Your task to perform on an android device: create a new album in the google photos Image 0: 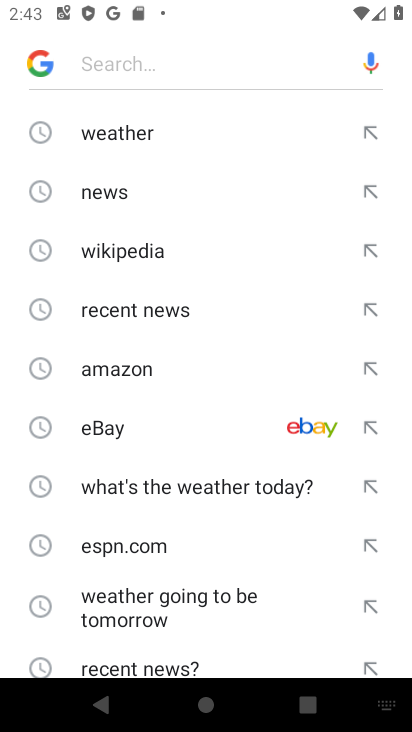
Step 0: press back button
Your task to perform on an android device: create a new album in the google photos Image 1: 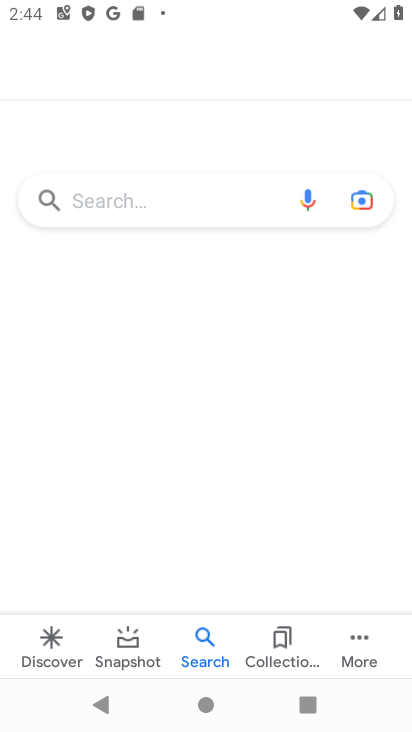
Step 1: press back button
Your task to perform on an android device: create a new album in the google photos Image 2: 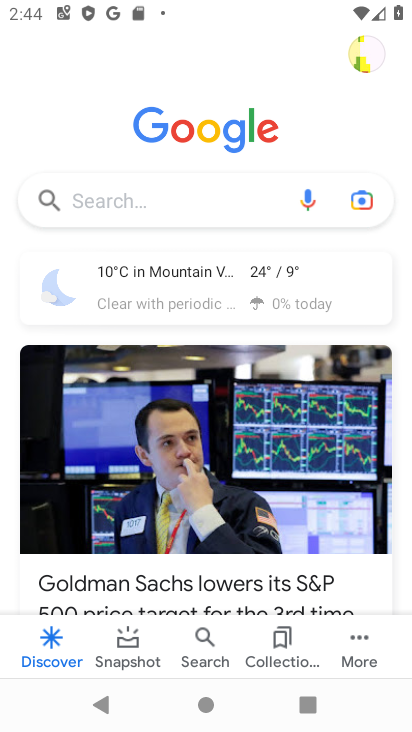
Step 2: press back button
Your task to perform on an android device: create a new album in the google photos Image 3: 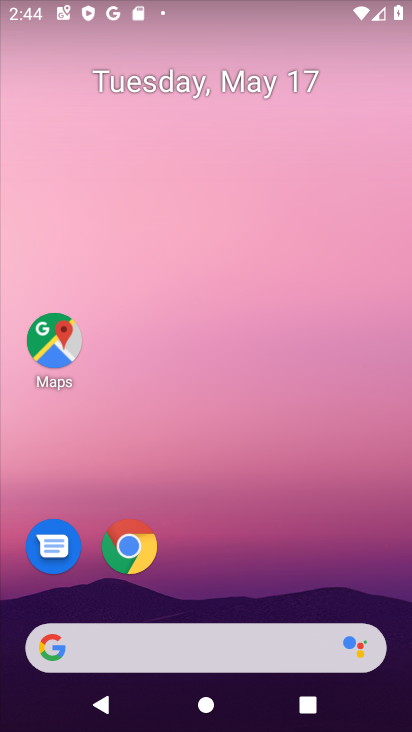
Step 3: drag from (356, 352) to (353, 272)
Your task to perform on an android device: create a new album in the google photos Image 4: 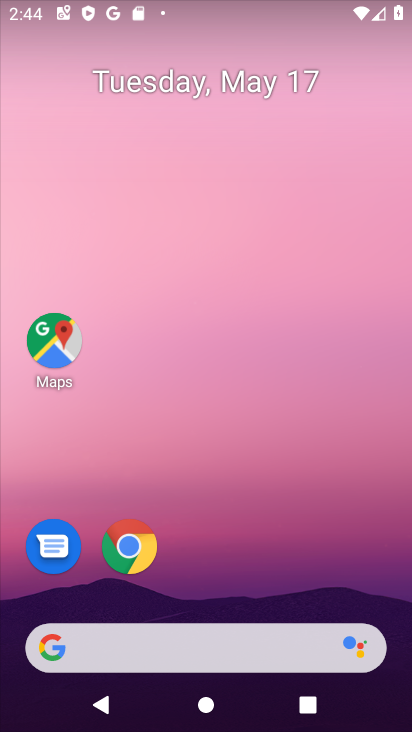
Step 4: drag from (399, 680) to (352, 296)
Your task to perform on an android device: create a new album in the google photos Image 5: 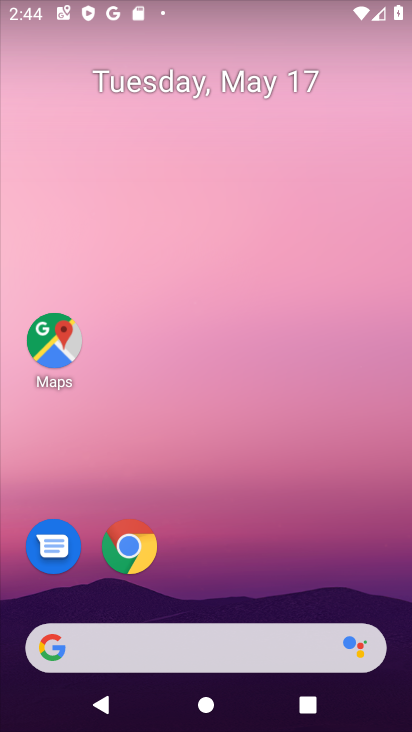
Step 5: drag from (404, 684) to (391, 299)
Your task to perform on an android device: create a new album in the google photos Image 6: 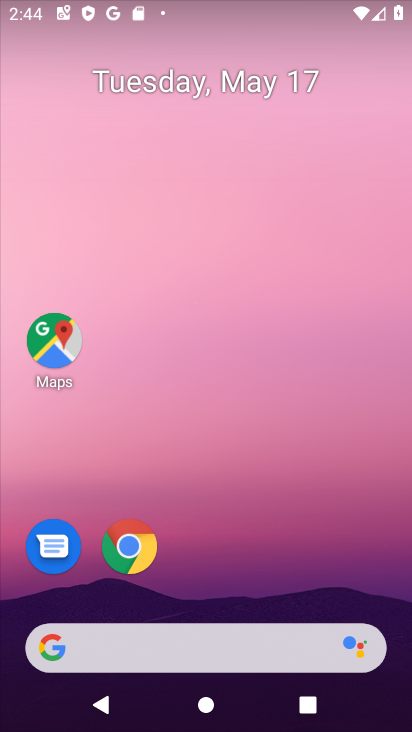
Step 6: drag from (404, 671) to (359, 273)
Your task to perform on an android device: create a new album in the google photos Image 7: 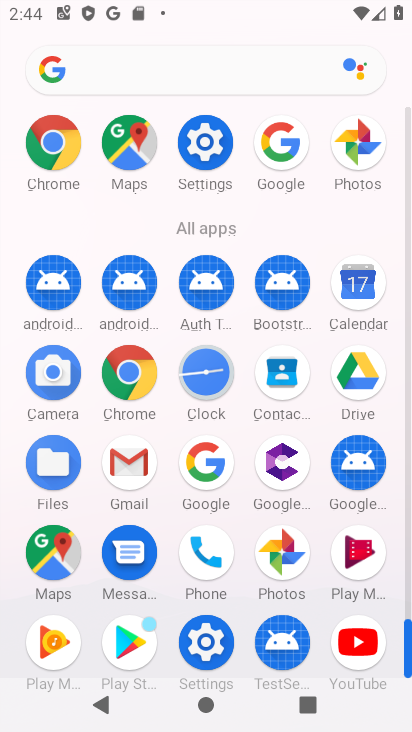
Step 7: click (281, 545)
Your task to perform on an android device: create a new album in the google photos Image 8: 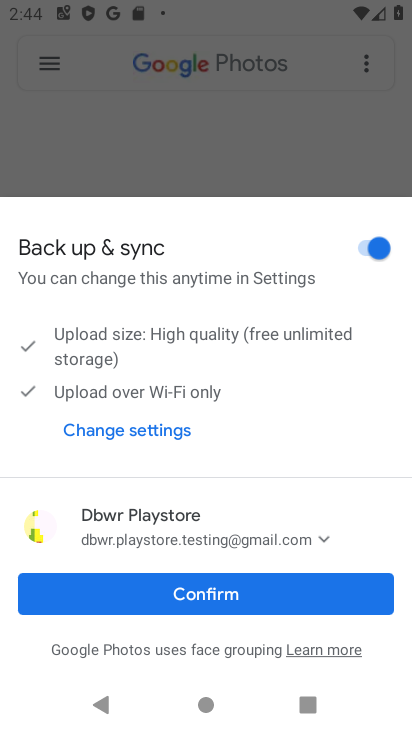
Step 8: click (272, 589)
Your task to perform on an android device: create a new album in the google photos Image 9: 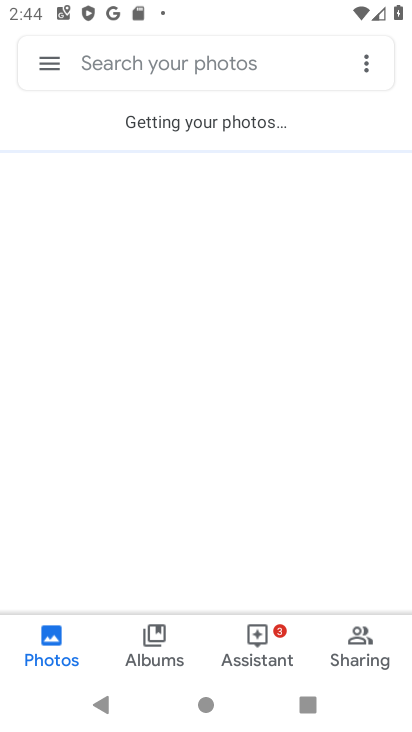
Step 9: click (54, 60)
Your task to perform on an android device: create a new album in the google photos Image 10: 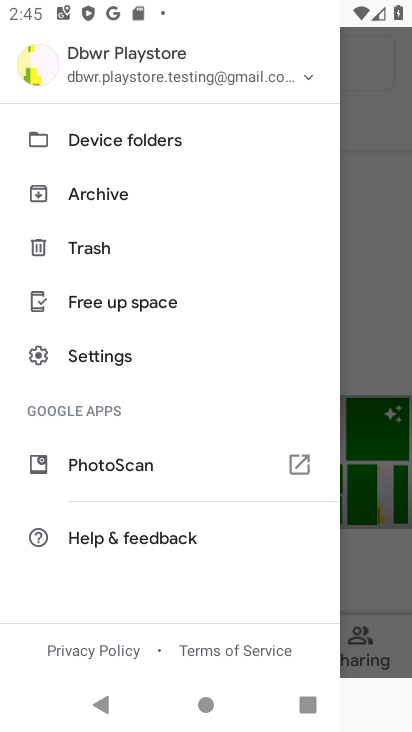
Step 10: press back button
Your task to perform on an android device: create a new album in the google photos Image 11: 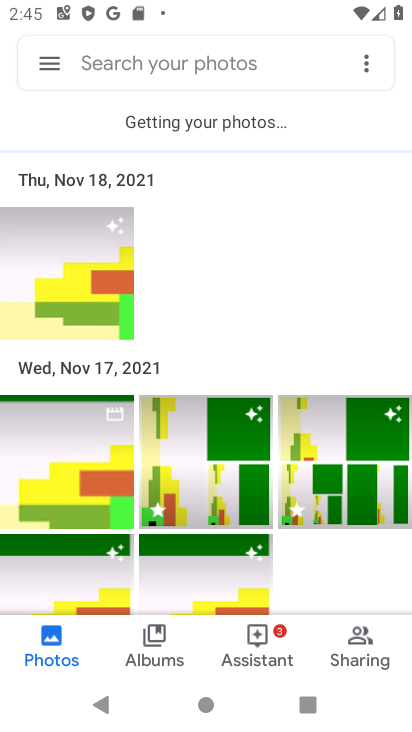
Step 11: click (370, 55)
Your task to perform on an android device: create a new album in the google photos Image 12: 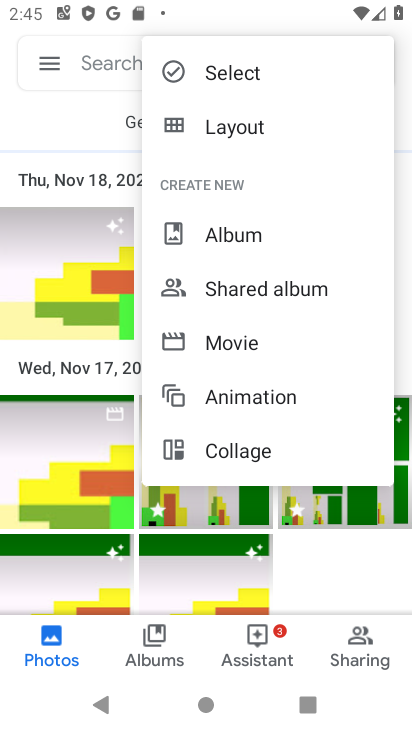
Step 12: click (220, 230)
Your task to perform on an android device: create a new album in the google photos Image 13: 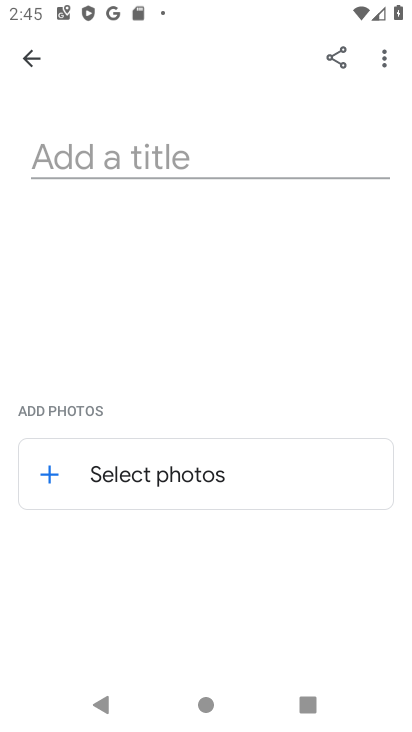
Step 13: click (128, 157)
Your task to perform on an android device: create a new album in the google photos Image 14: 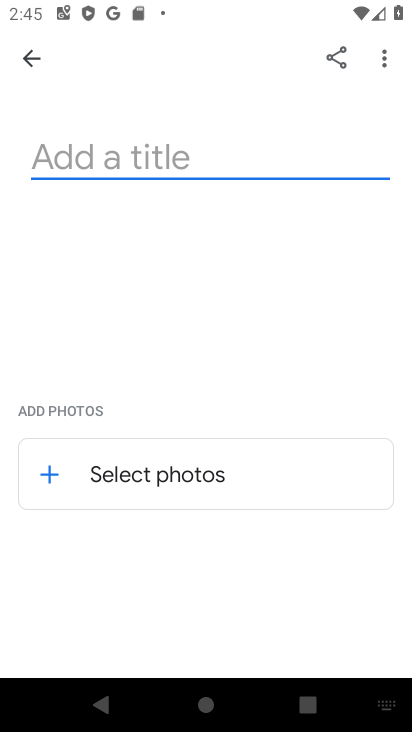
Step 14: type "wdfb"
Your task to perform on an android device: create a new album in the google photos Image 15: 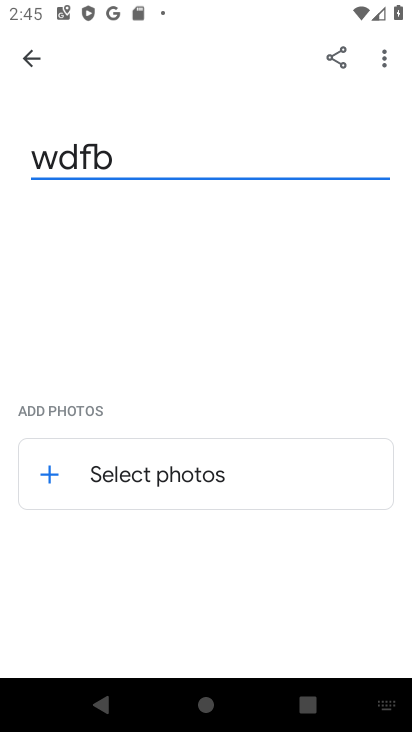
Step 15: click (115, 484)
Your task to perform on an android device: create a new album in the google photos Image 16: 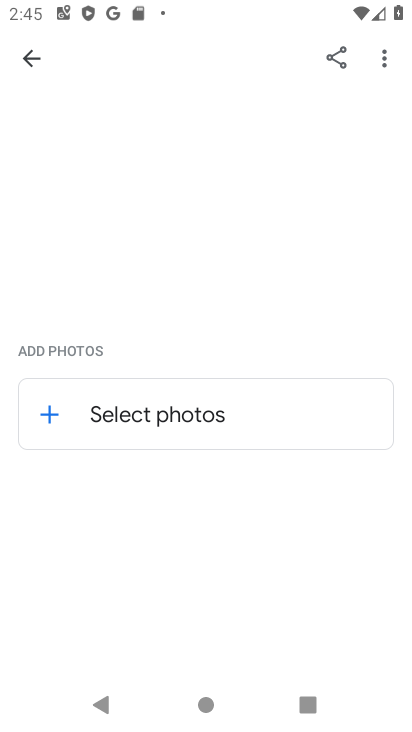
Step 16: click (52, 415)
Your task to perform on an android device: create a new album in the google photos Image 17: 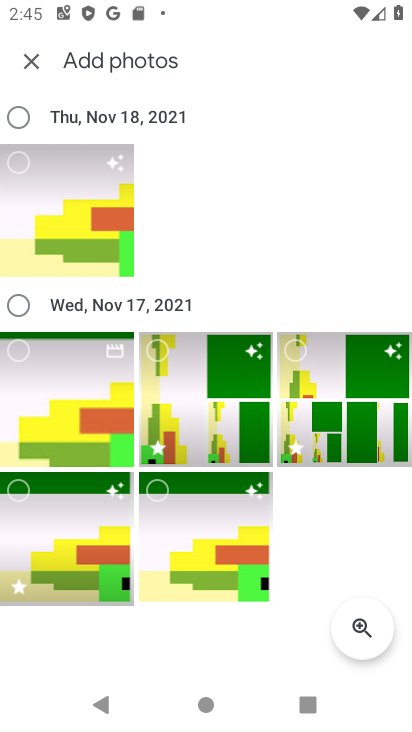
Step 17: click (17, 166)
Your task to perform on an android device: create a new album in the google photos Image 18: 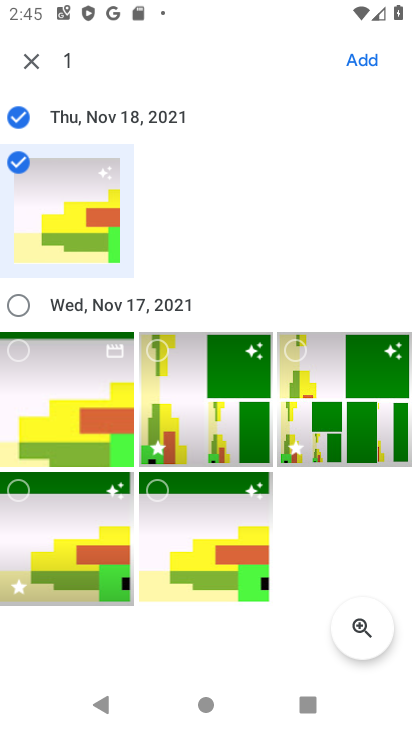
Step 18: click (161, 491)
Your task to perform on an android device: create a new album in the google photos Image 19: 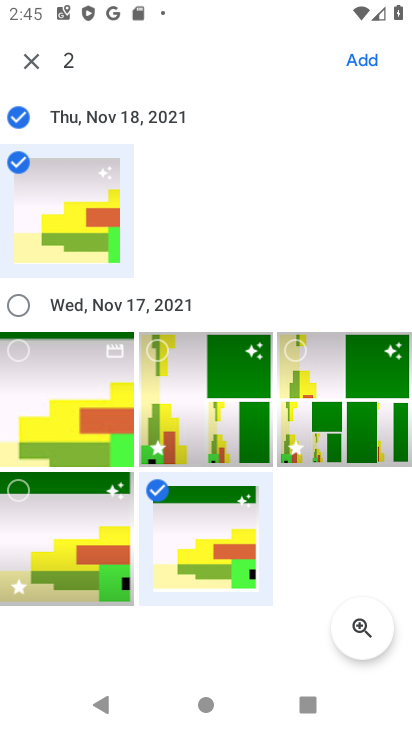
Step 19: click (294, 351)
Your task to perform on an android device: create a new album in the google photos Image 20: 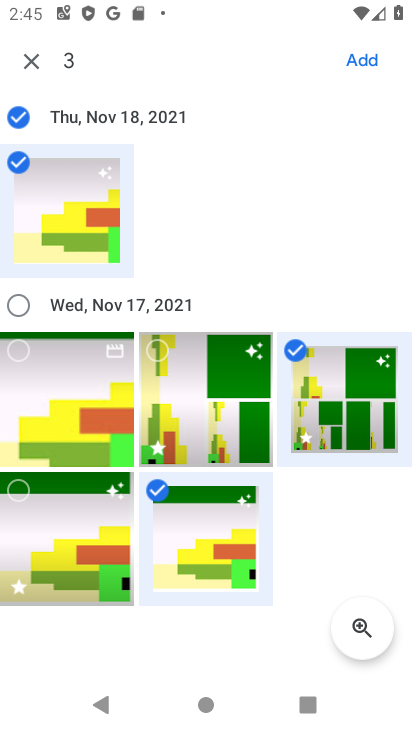
Step 20: click (27, 495)
Your task to perform on an android device: create a new album in the google photos Image 21: 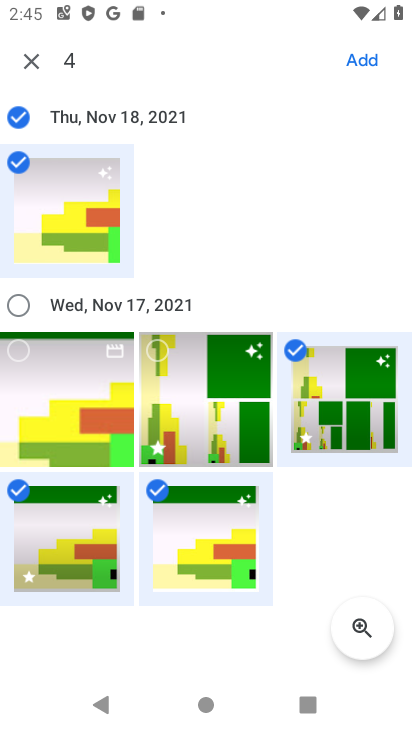
Step 21: click (376, 56)
Your task to perform on an android device: create a new album in the google photos Image 22: 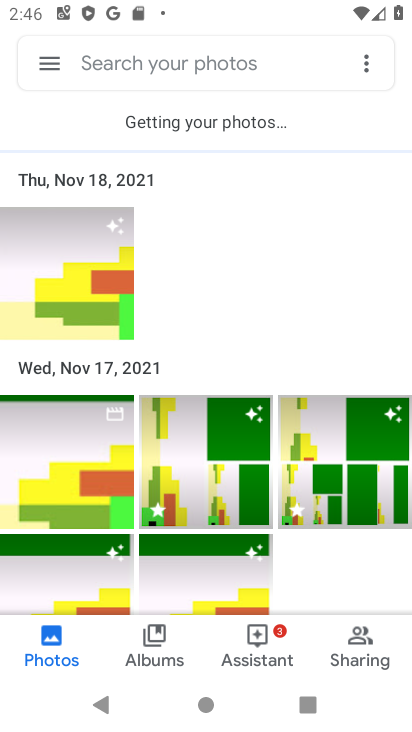
Step 22: task complete